Your task to perform on an android device: Play the last video I watched on Youtube Image 0: 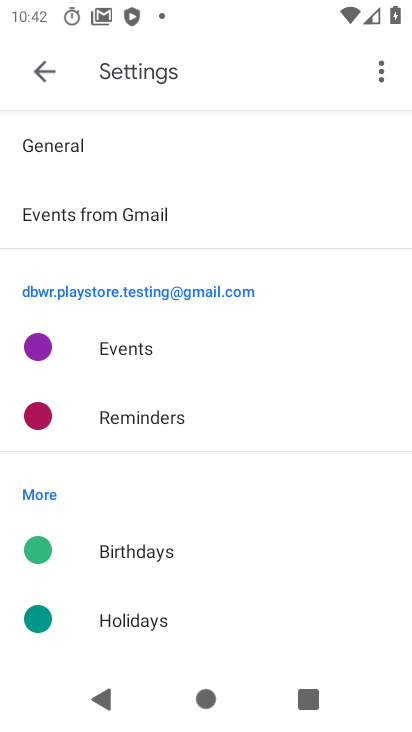
Step 0: press home button
Your task to perform on an android device: Play the last video I watched on Youtube Image 1: 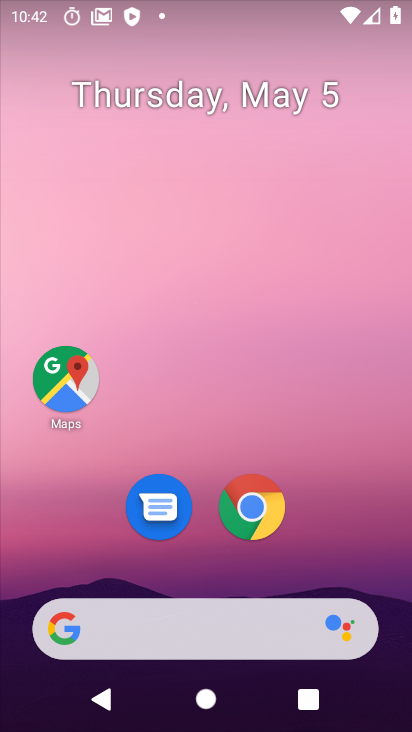
Step 1: drag from (356, 563) to (381, 25)
Your task to perform on an android device: Play the last video I watched on Youtube Image 2: 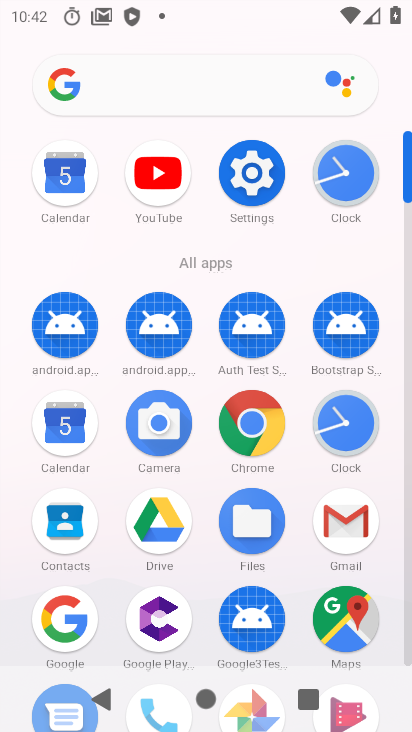
Step 2: click (158, 167)
Your task to perform on an android device: Play the last video I watched on Youtube Image 3: 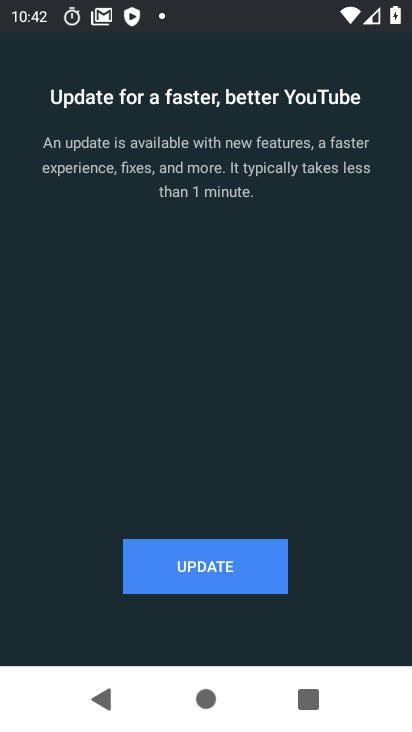
Step 3: click (197, 576)
Your task to perform on an android device: Play the last video I watched on Youtube Image 4: 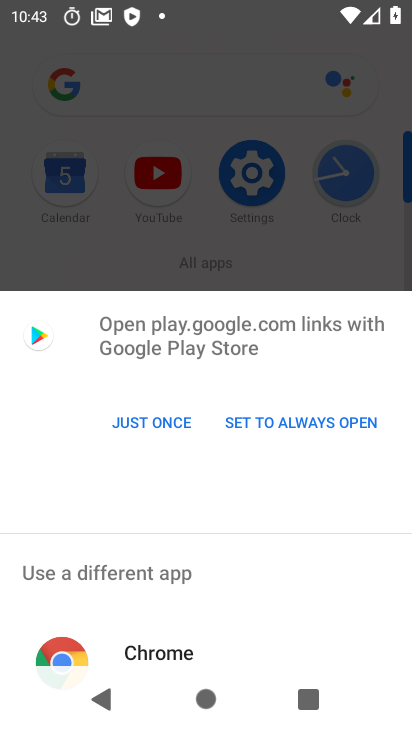
Step 4: click (157, 420)
Your task to perform on an android device: Play the last video I watched on Youtube Image 5: 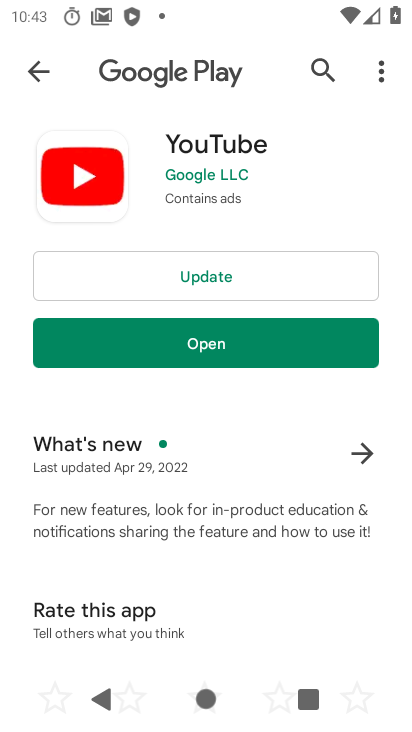
Step 5: click (207, 281)
Your task to perform on an android device: Play the last video I watched on Youtube Image 6: 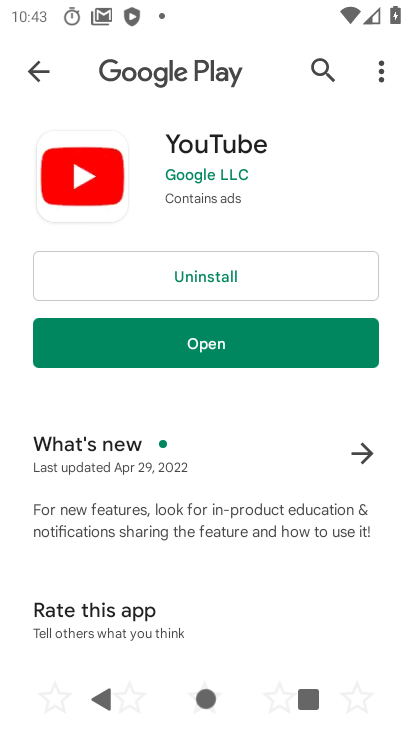
Step 6: click (222, 348)
Your task to perform on an android device: Play the last video I watched on Youtube Image 7: 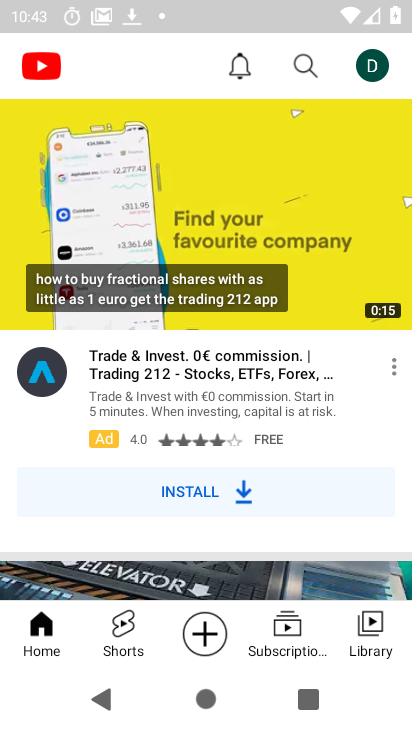
Step 7: click (376, 639)
Your task to perform on an android device: Play the last video I watched on Youtube Image 8: 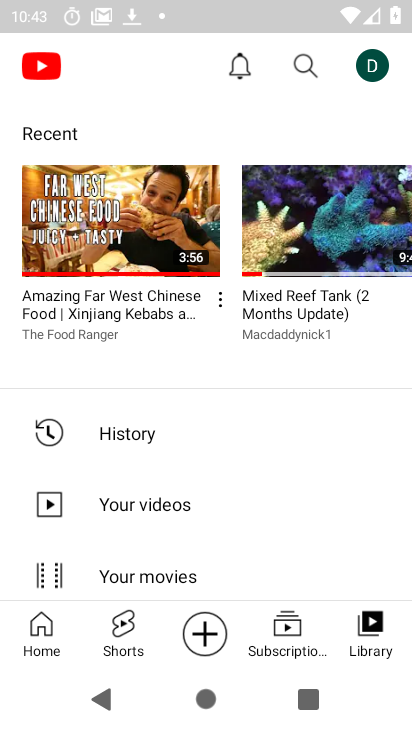
Step 8: click (110, 432)
Your task to perform on an android device: Play the last video I watched on Youtube Image 9: 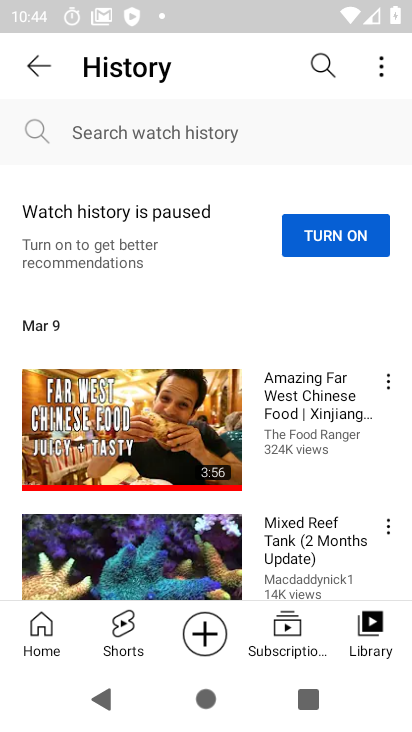
Step 9: click (109, 419)
Your task to perform on an android device: Play the last video I watched on Youtube Image 10: 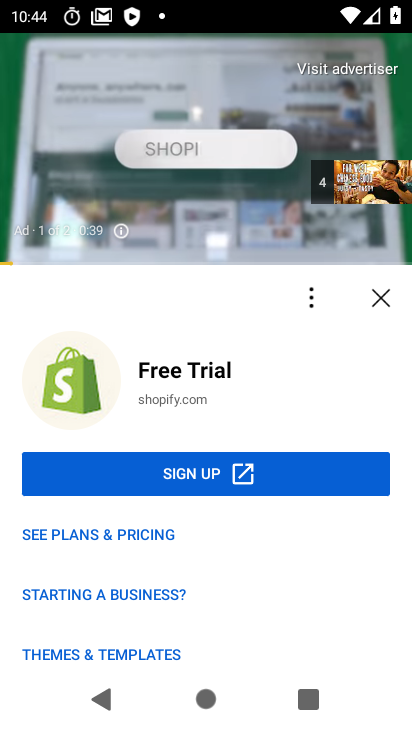
Step 10: task complete